Your task to perform on an android device: check the backup settings in the google photos Image 0: 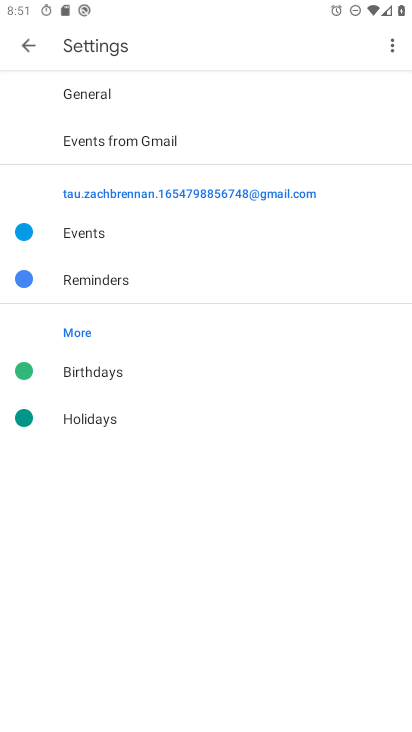
Step 0: press home button
Your task to perform on an android device: check the backup settings in the google photos Image 1: 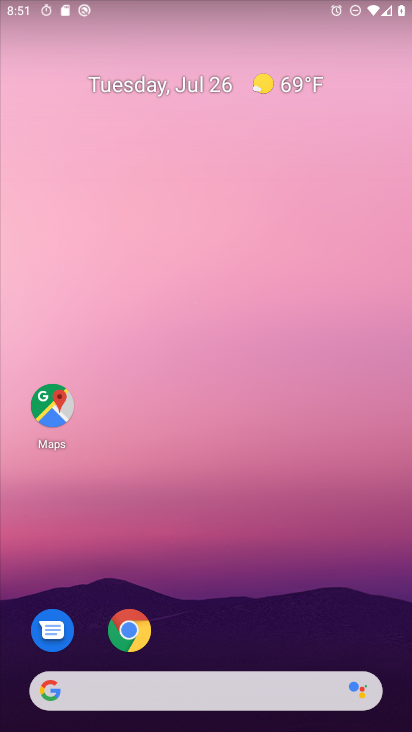
Step 1: drag from (250, 562) to (243, 232)
Your task to perform on an android device: check the backup settings in the google photos Image 2: 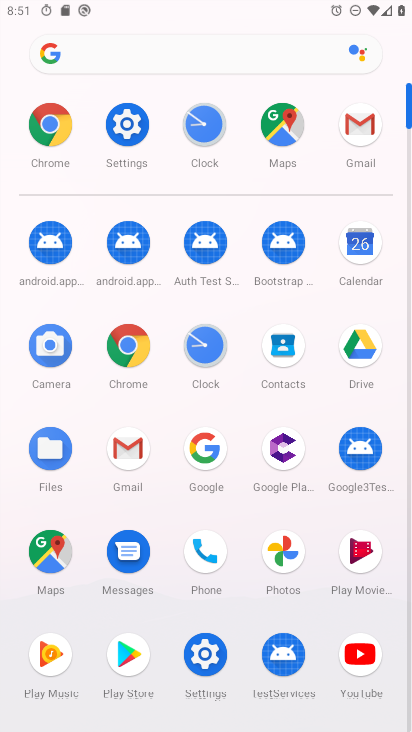
Step 2: click (277, 547)
Your task to perform on an android device: check the backup settings in the google photos Image 3: 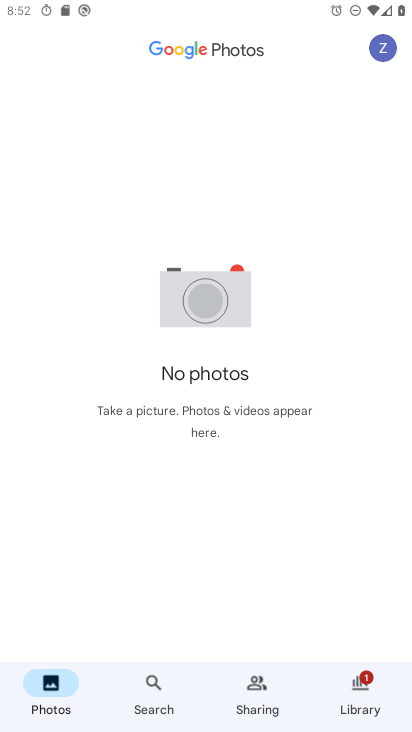
Step 3: click (395, 46)
Your task to perform on an android device: check the backup settings in the google photos Image 4: 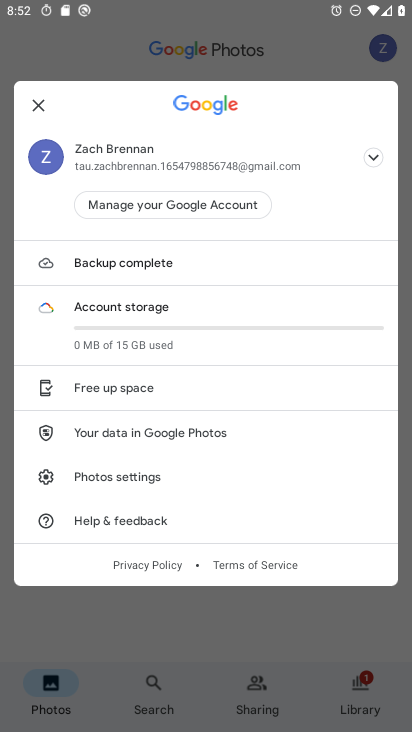
Step 4: drag from (179, 464) to (191, 243)
Your task to perform on an android device: check the backup settings in the google photos Image 5: 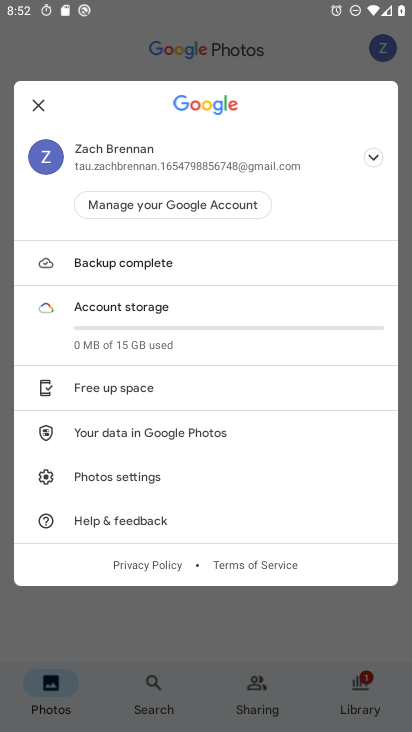
Step 5: click (152, 470)
Your task to perform on an android device: check the backup settings in the google photos Image 6: 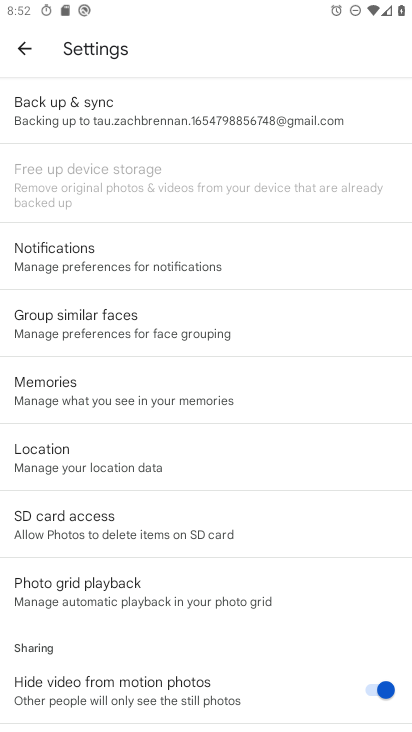
Step 6: click (214, 120)
Your task to perform on an android device: check the backup settings in the google photos Image 7: 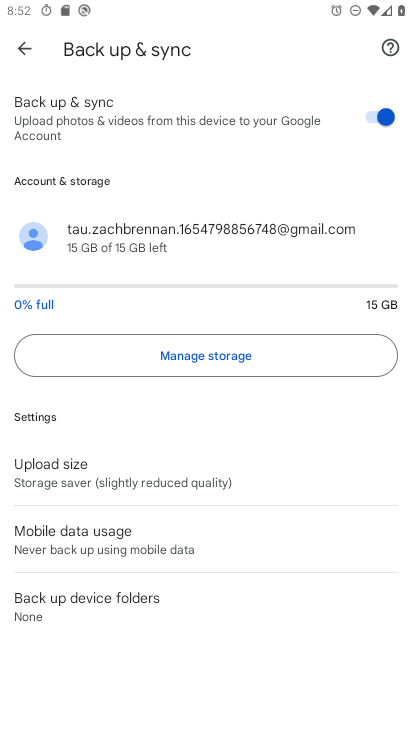
Step 7: task complete